Your task to perform on an android device: Open ESPN.com Image 0: 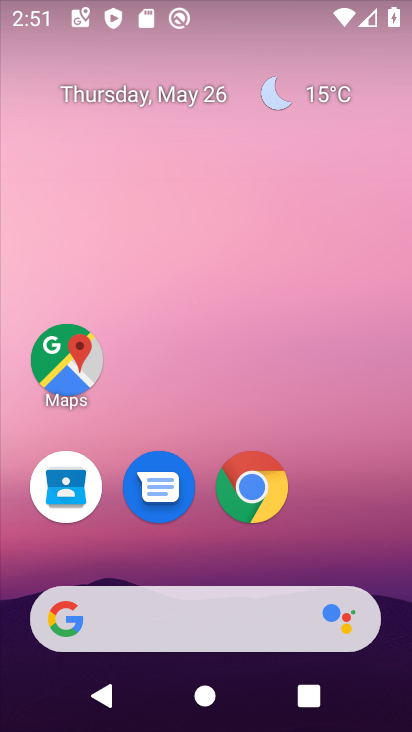
Step 0: click (248, 484)
Your task to perform on an android device: Open ESPN.com Image 1: 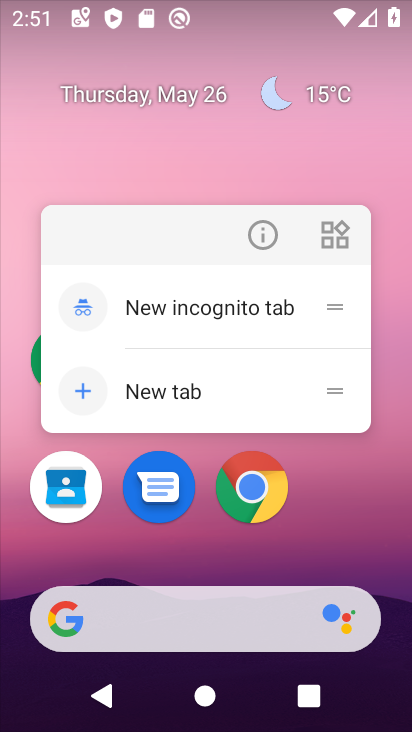
Step 1: click (276, 487)
Your task to perform on an android device: Open ESPN.com Image 2: 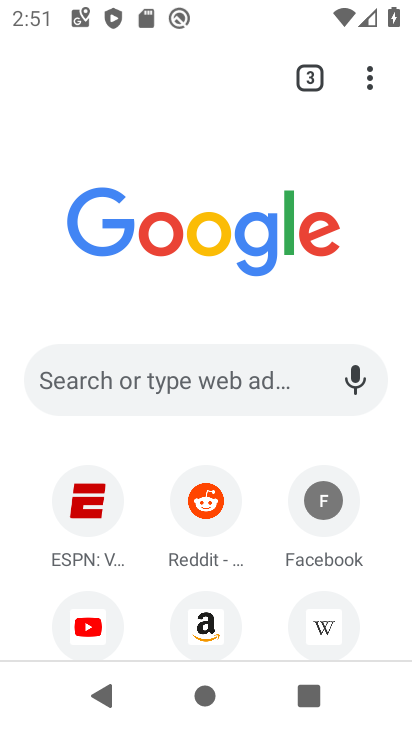
Step 2: drag from (223, 517) to (271, 269)
Your task to perform on an android device: Open ESPN.com Image 3: 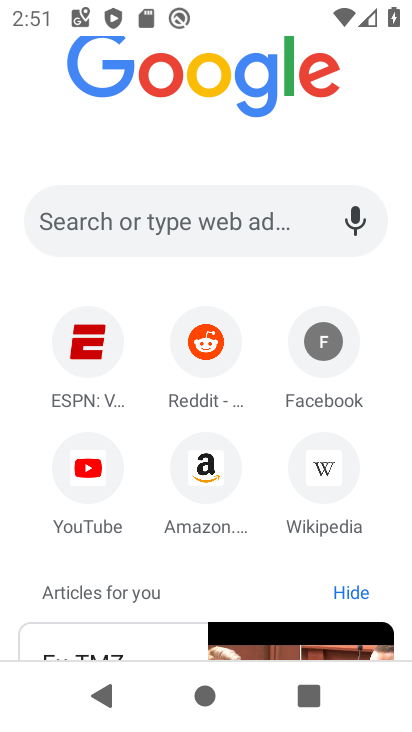
Step 3: click (94, 355)
Your task to perform on an android device: Open ESPN.com Image 4: 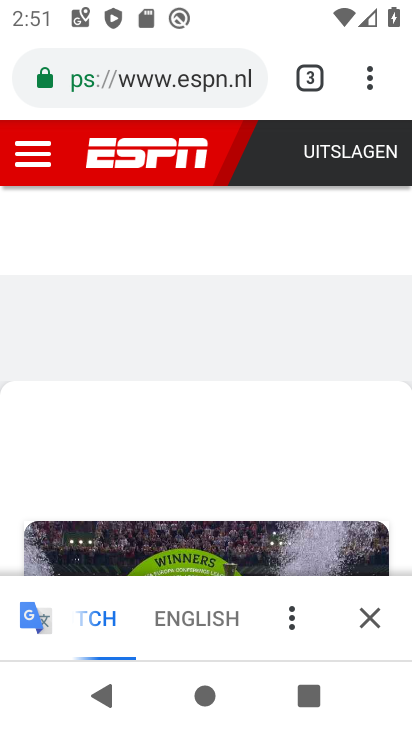
Step 4: task complete